Your task to perform on an android device: Do I have any events today? Image 0: 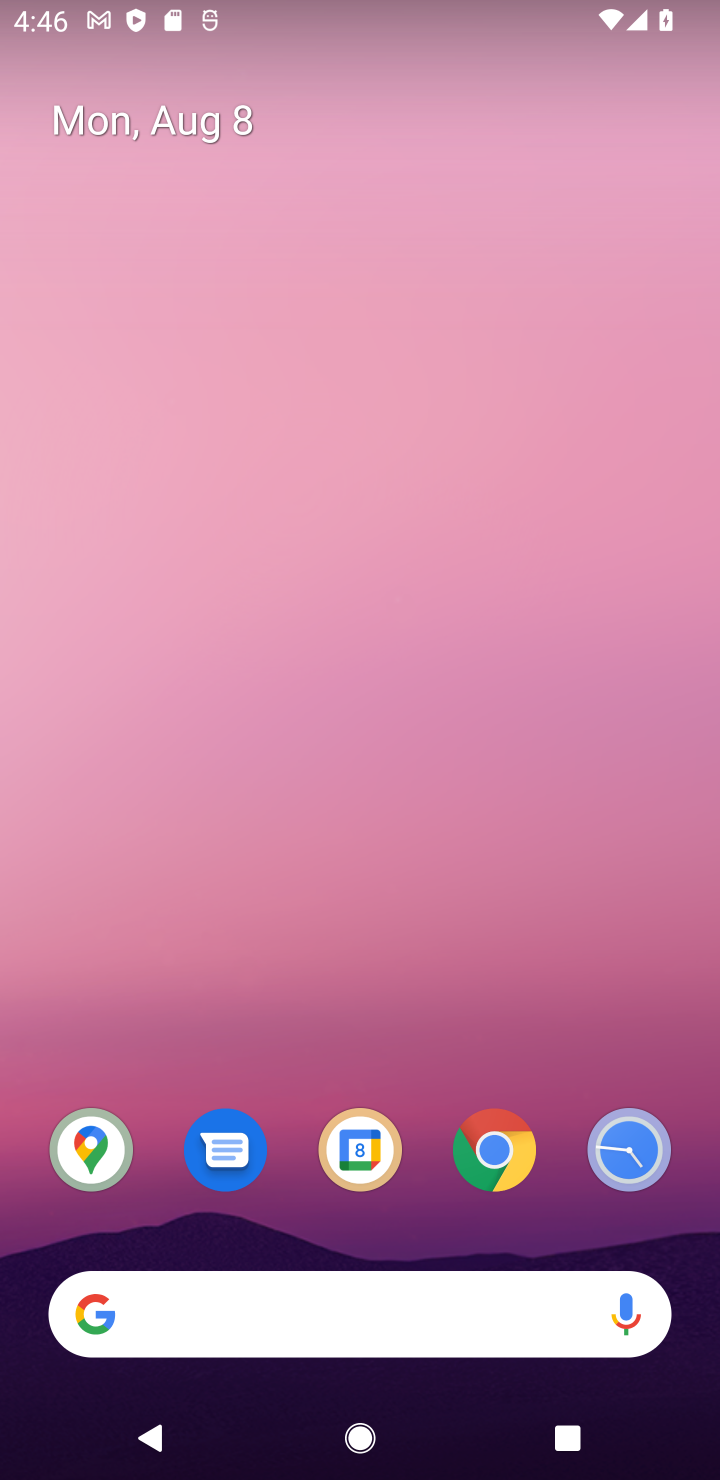
Step 0: drag from (302, 1239) to (329, 228)
Your task to perform on an android device: Do I have any events today? Image 1: 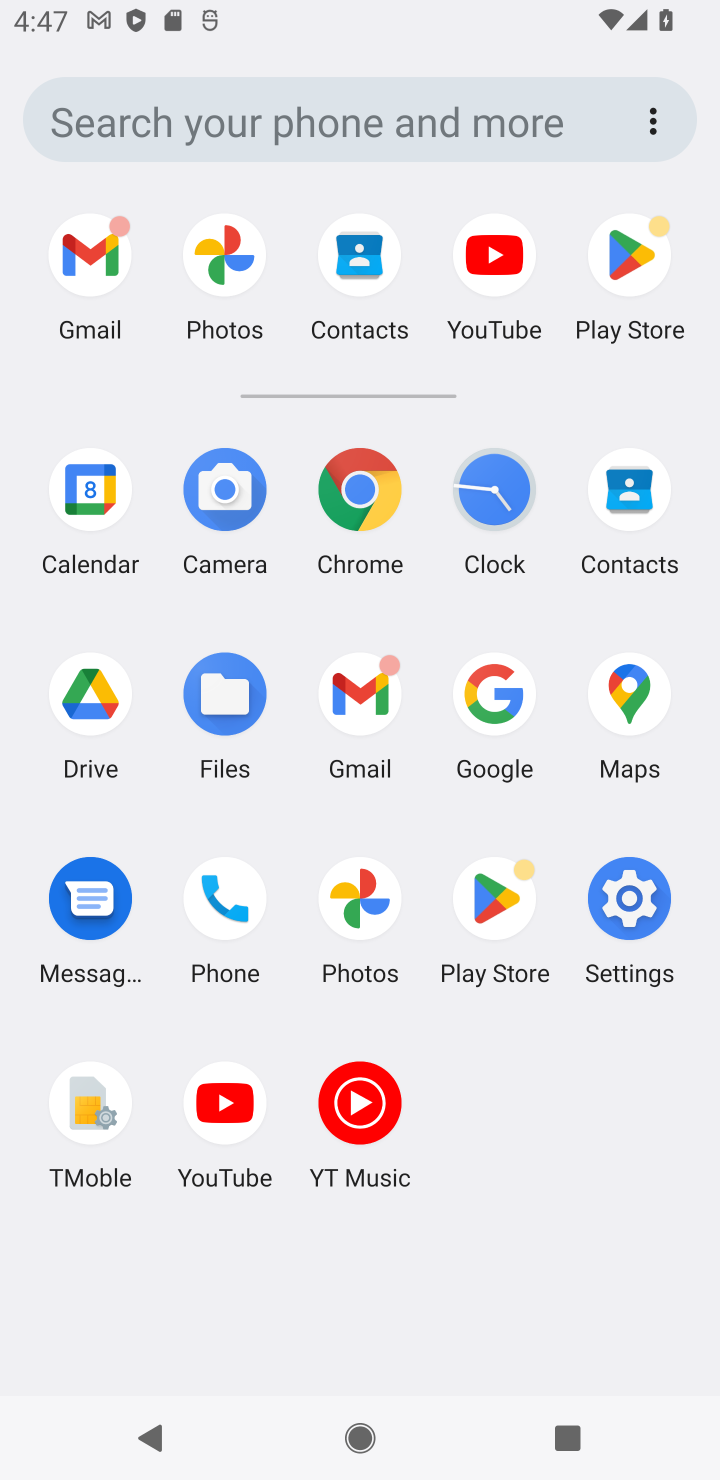
Step 1: click (102, 516)
Your task to perform on an android device: Do I have any events today? Image 2: 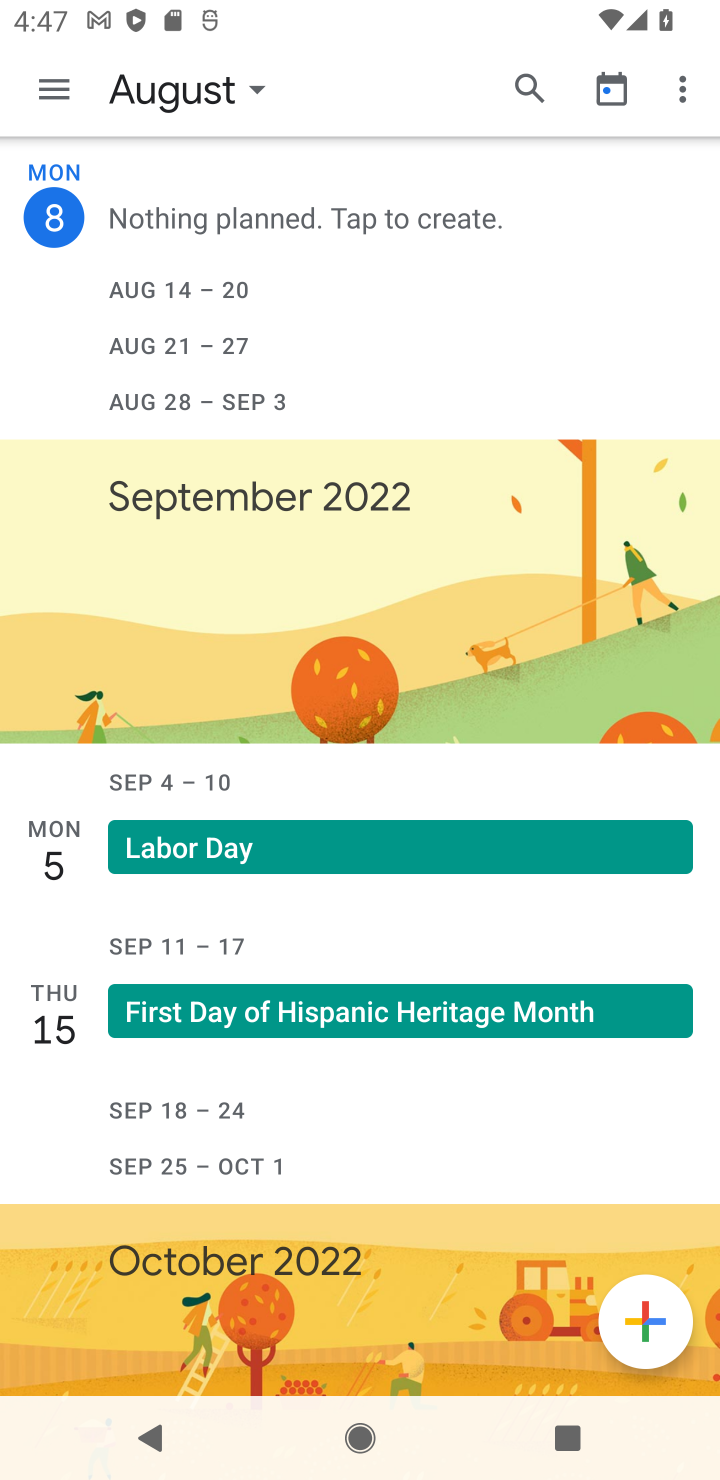
Step 2: task complete